Your task to perform on an android device: open a new tab in the chrome app Image 0: 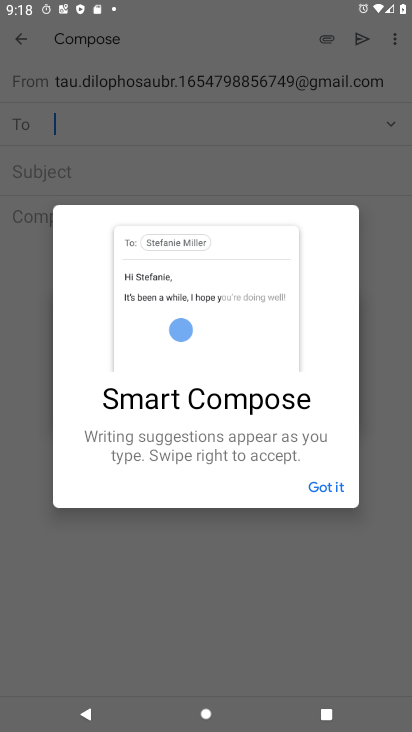
Step 0: press home button
Your task to perform on an android device: open a new tab in the chrome app Image 1: 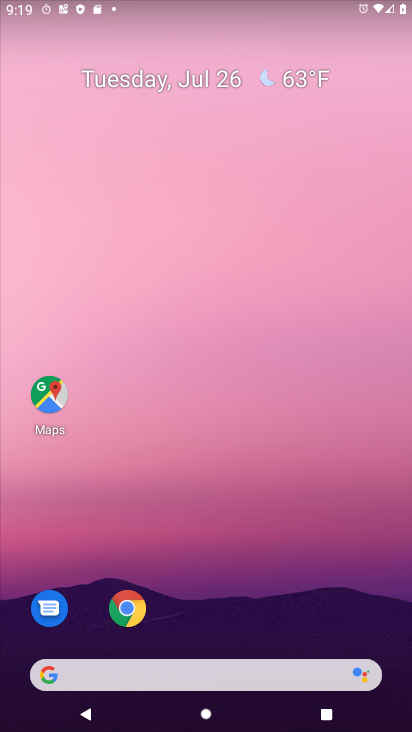
Step 1: click (131, 611)
Your task to perform on an android device: open a new tab in the chrome app Image 2: 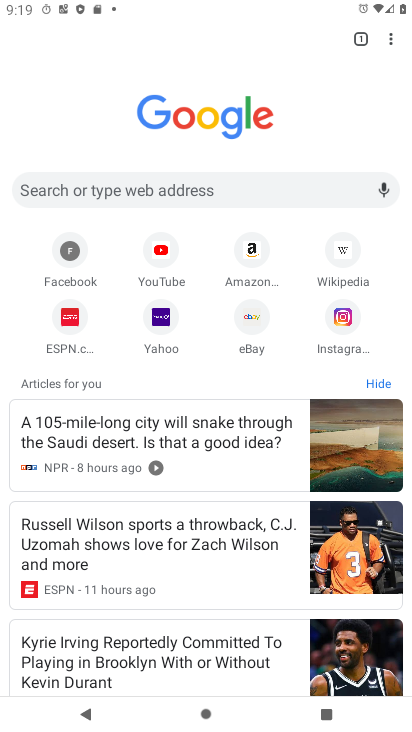
Step 2: click (394, 42)
Your task to perform on an android device: open a new tab in the chrome app Image 3: 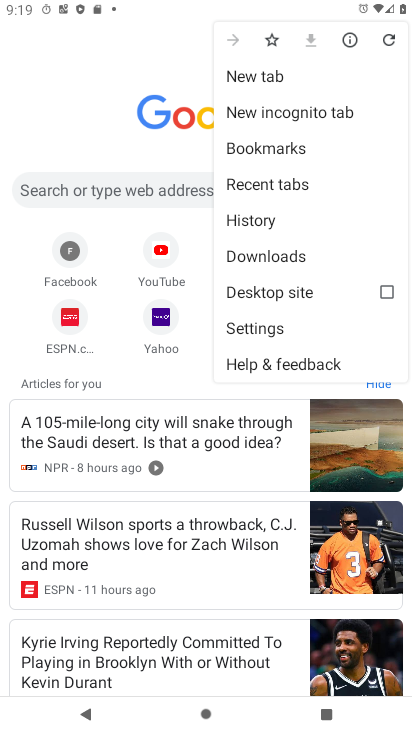
Step 3: click (277, 77)
Your task to perform on an android device: open a new tab in the chrome app Image 4: 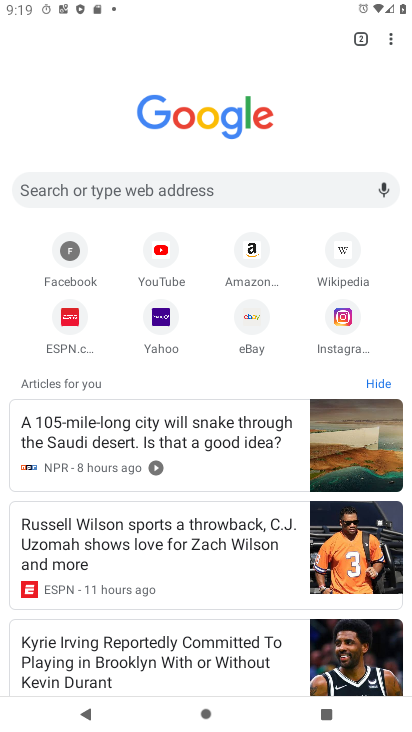
Step 4: task complete